Your task to perform on an android device: turn off location history Image 0: 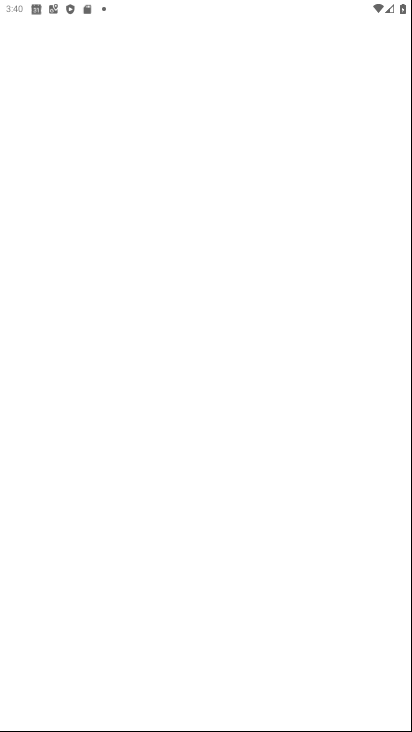
Step 0: drag from (213, 590) to (160, 241)
Your task to perform on an android device: turn off location history Image 1: 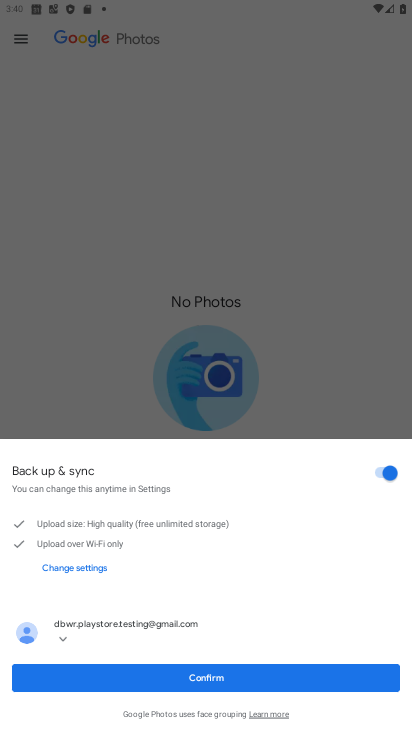
Step 1: click (239, 680)
Your task to perform on an android device: turn off location history Image 2: 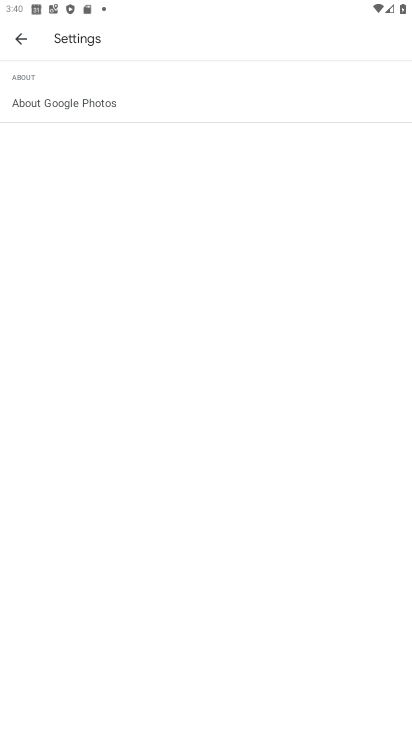
Step 2: press home button
Your task to perform on an android device: turn off location history Image 3: 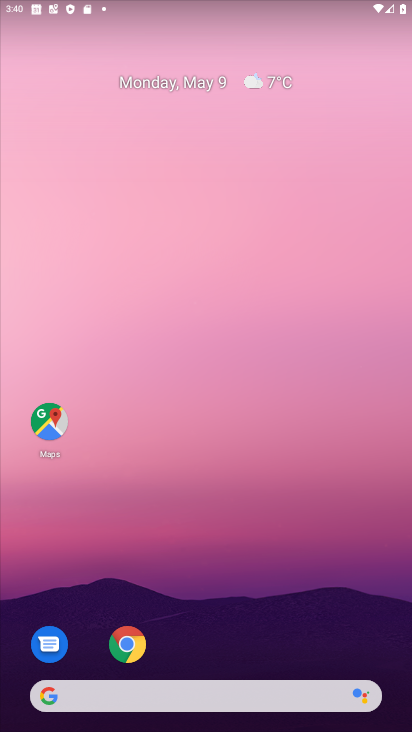
Step 3: click (44, 431)
Your task to perform on an android device: turn off location history Image 4: 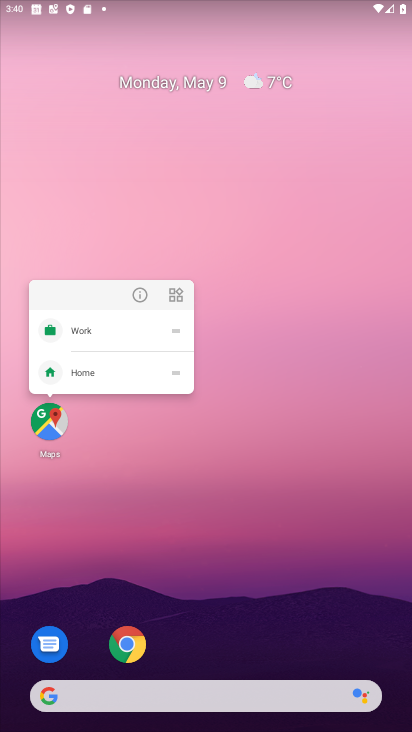
Step 4: click (47, 404)
Your task to perform on an android device: turn off location history Image 5: 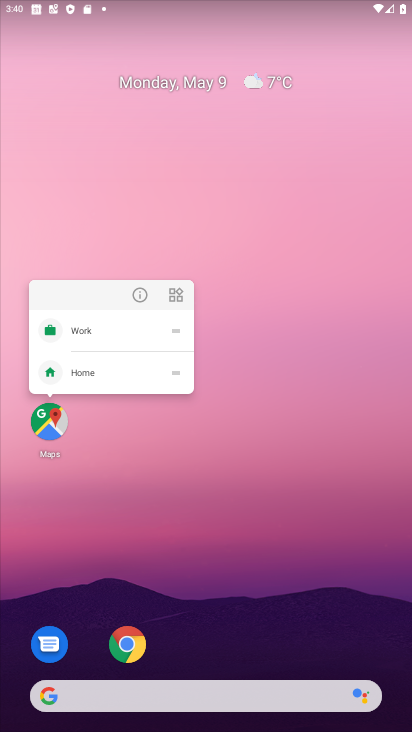
Step 5: click (46, 405)
Your task to perform on an android device: turn off location history Image 6: 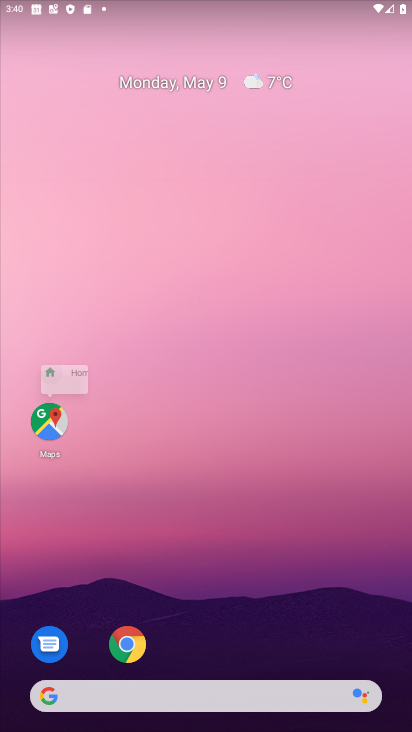
Step 6: click (46, 406)
Your task to perform on an android device: turn off location history Image 7: 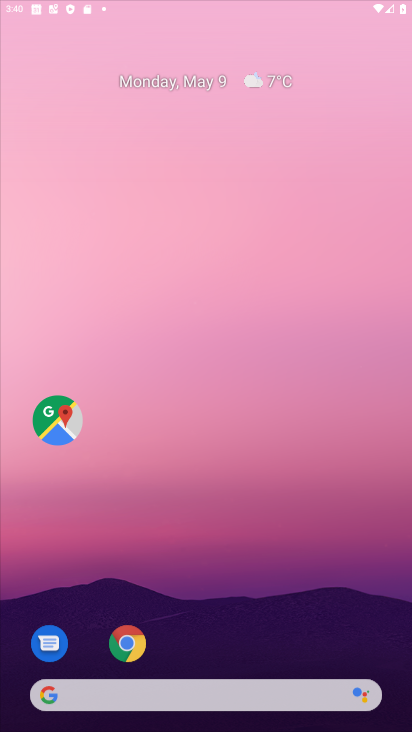
Step 7: click (48, 408)
Your task to perform on an android device: turn off location history Image 8: 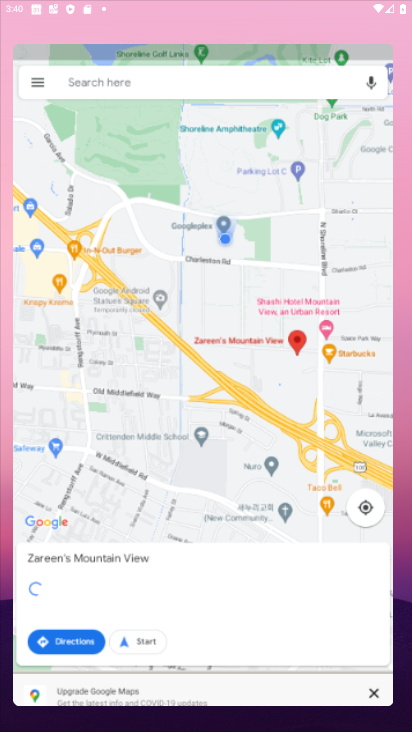
Step 8: click (49, 409)
Your task to perform on an android device: turn off location history Image 9: 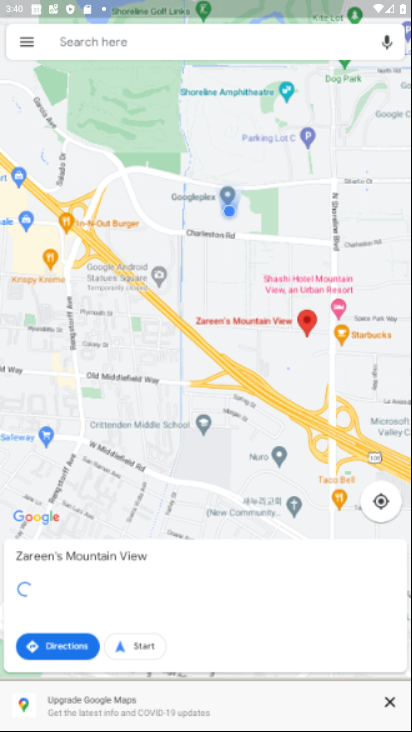
Step 9: click (56, 409)
Your task to perform on an android device: turn off location history Image 10: 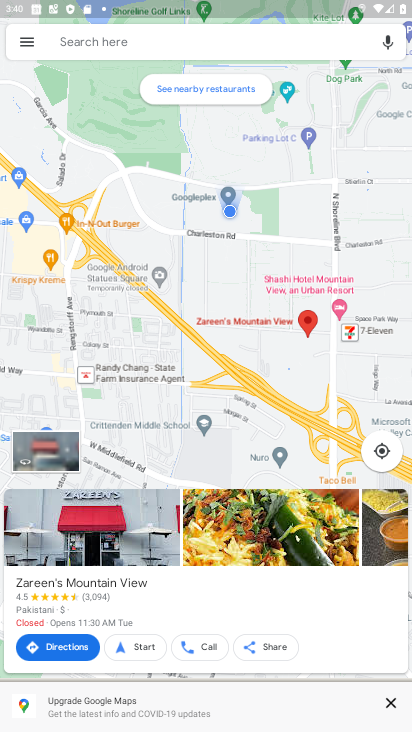
Step 10: click (28, 47)
Your task to perform on an android device: turn off location history Image 11: 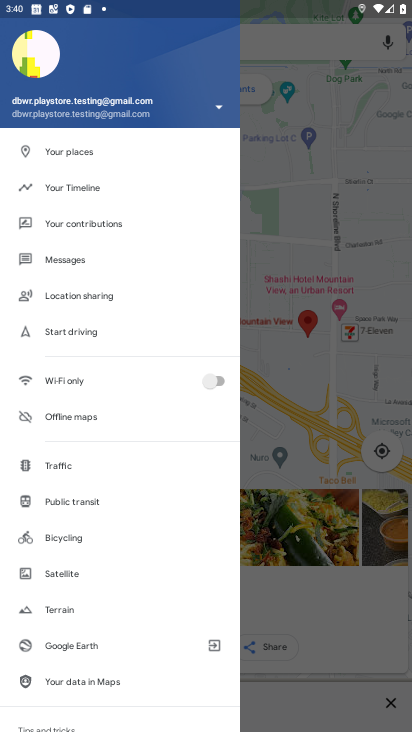
Step 11: click (102, 191)
Your task to perform on an android device: turn off location history Image 12: 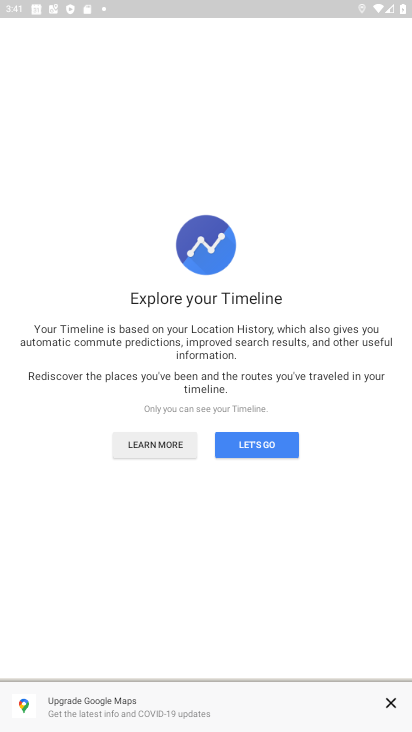
Step 12: click (257, 441)
Your task to perform on an android device: turn off location history Image 13: 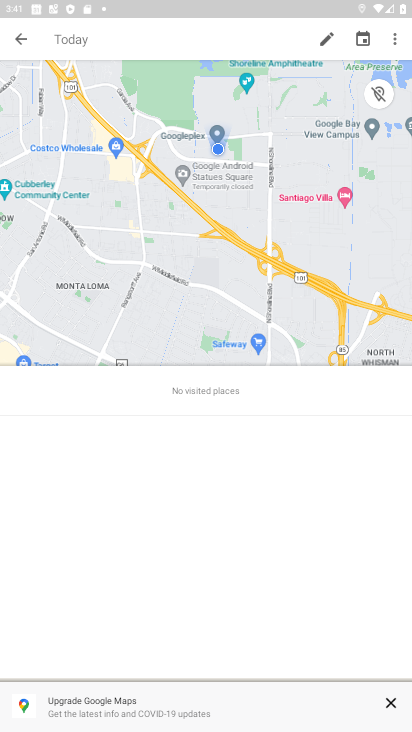
Step 13: click (389, 43)
Your task to perform on an android device: turn off location history Image 14: 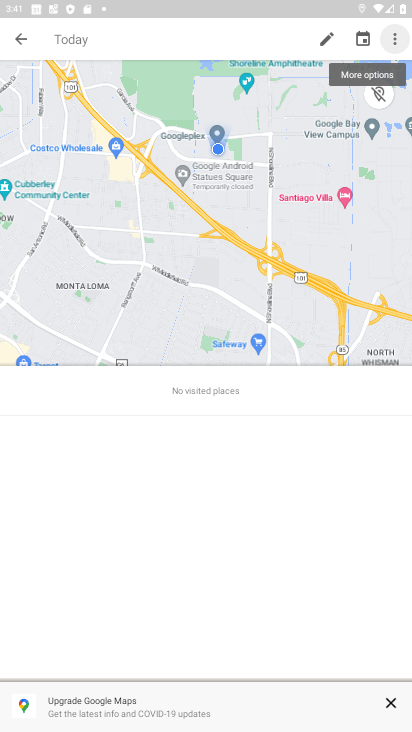
Step 14: click (389, 43)
Your task to perform on an android device: turn off location history Image 15: 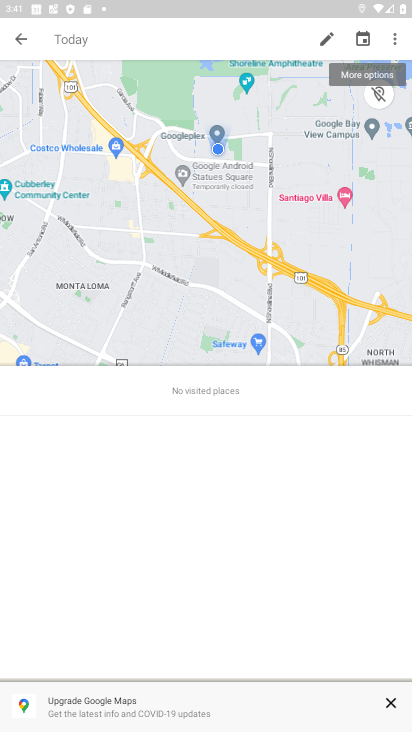
Step 15: click (389, 43)
Your task to perform on an android device: turn off location history Image 16: 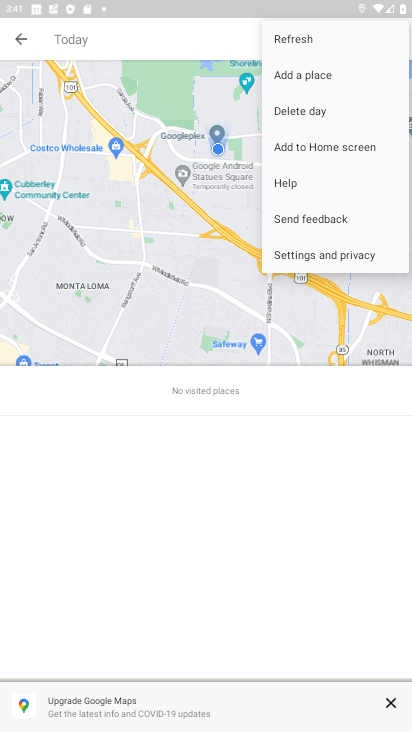
Step 16: click (389, 43)
Your task to perform on an android device: turn off location history Image 17: 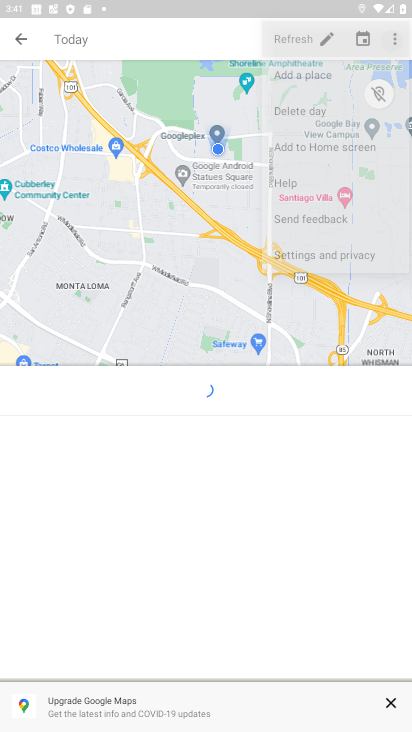
Step 17: click (390, 46)
Your task to perform on an android device: turn off location history Image 18: 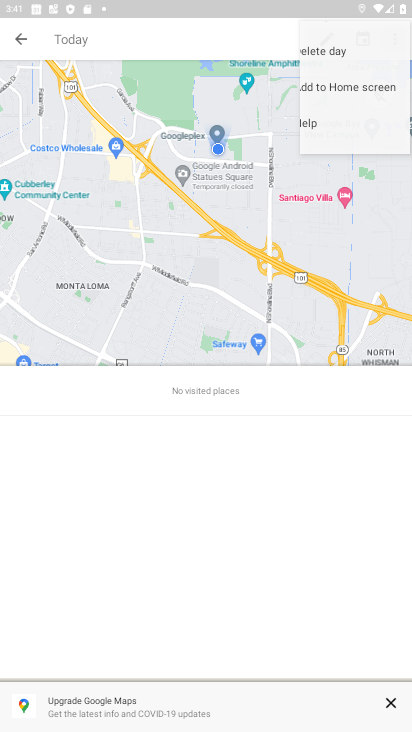
Step 18: drag from (350, 184) to (310, 284)
Your task to perform on an android device: turn off location history Image 19: 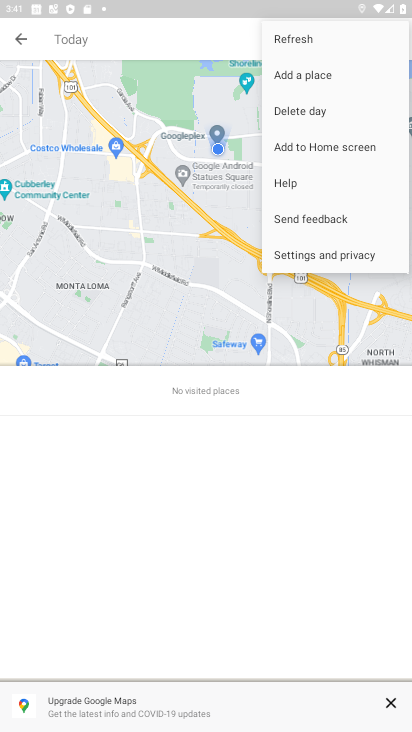
Step 19: click (348, 246)
Your task to perform on an android device: turn off location history Image 20: 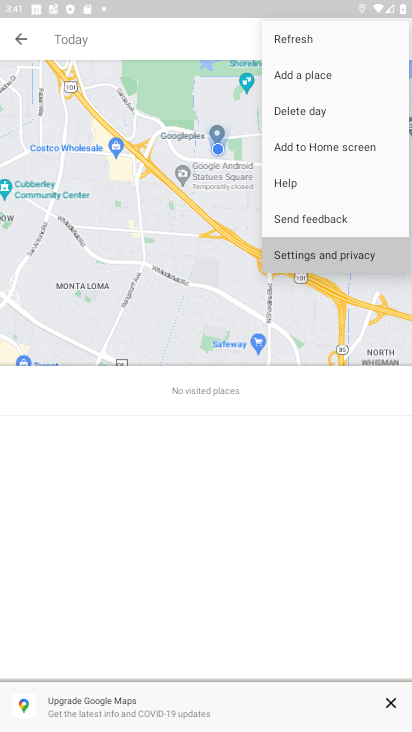
Step 20: click (348, 246)
Your task to perform on an android device: turn off location history Image 21: 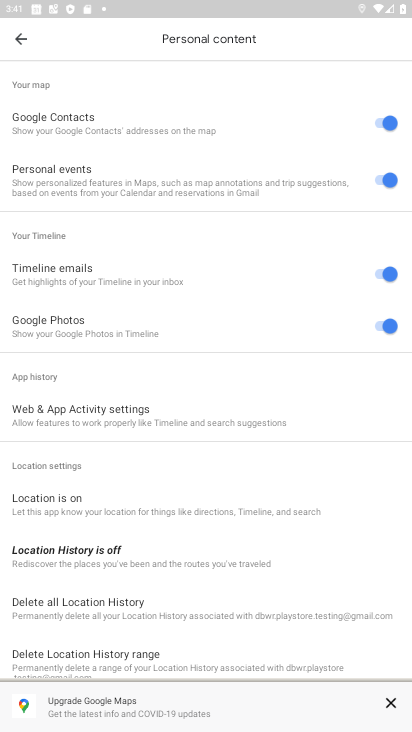
Step 21: click (63, 556)
Your task to perform on an android device: turn off location history Image 22: 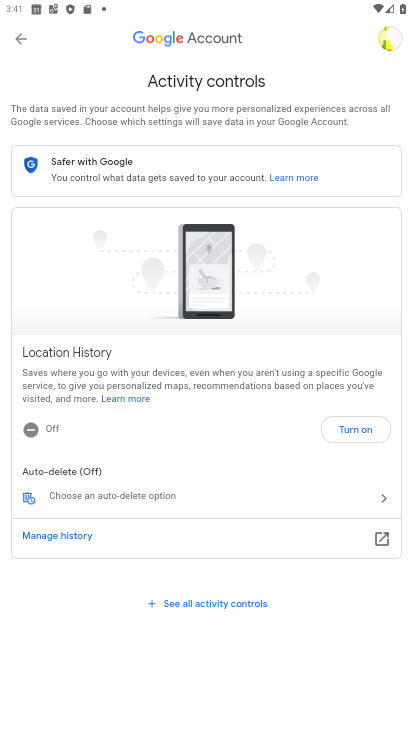
Step 22: click (346, 428)
Your task to perform on an android device: turn off location history Image 23: 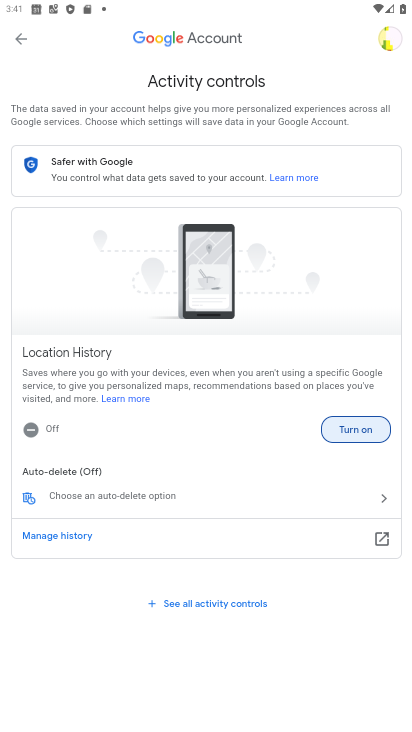
Step 23: click (346, 428)
Your task to perform on an android device: turn off location history Image 24: 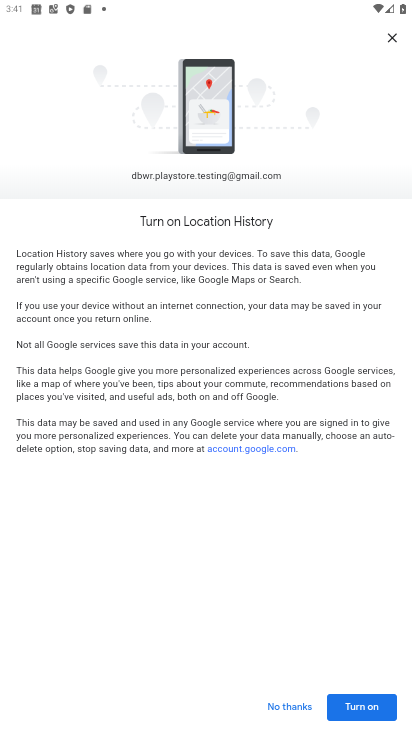
Step 24: click (281, 704)
Your task to perform on an android device: turn off location history Image 25: 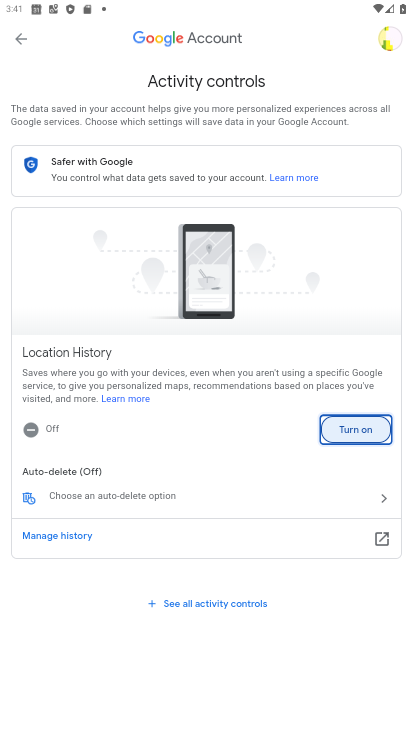
Step 25: task complete